Your task to perform on an android device: Go to Wikipedia Image 0: 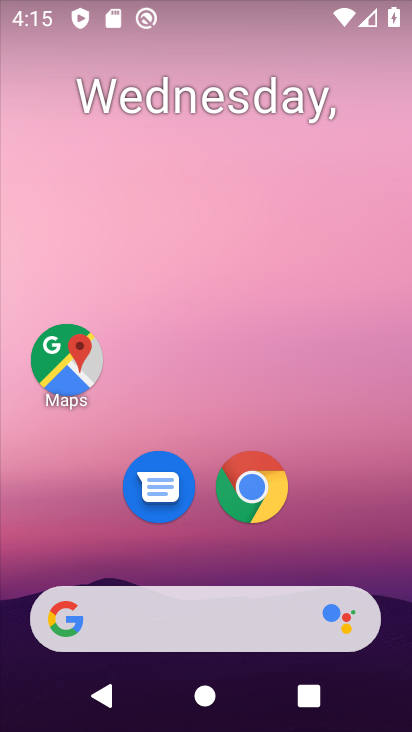
Step 0: click (256, 488)
Your task to perform on an android device: Go to Wikipedia Image 1: 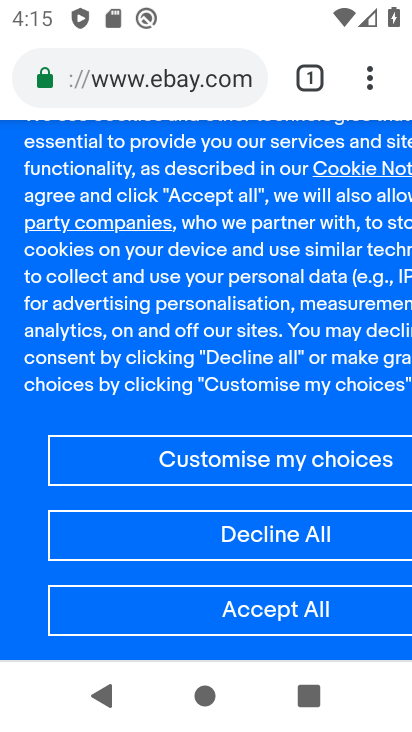
Step 1: click (228, 96)
Your task to perform on an android device: Go to Wikipedia Image 2: 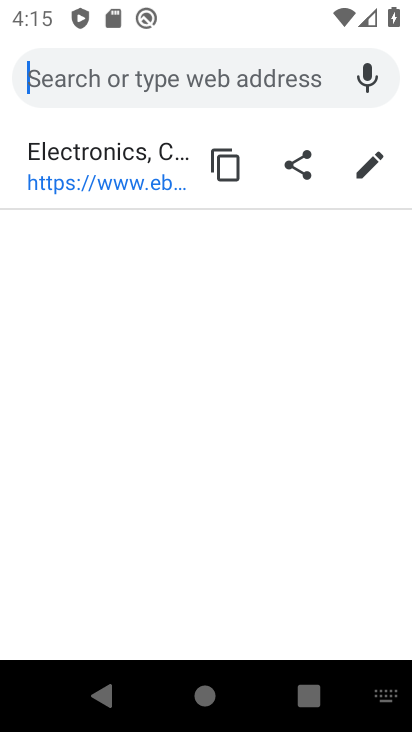
Step 2: type "wikipedia"
Your task to perform on an android device: Go to Wikipedia Image 3: 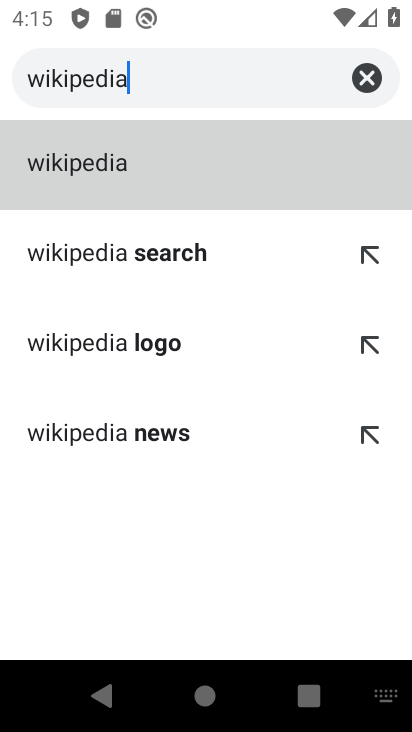
Step 3: click (113, 156)
Your task to perform on an android device: Go to Wikipedia Image 4: 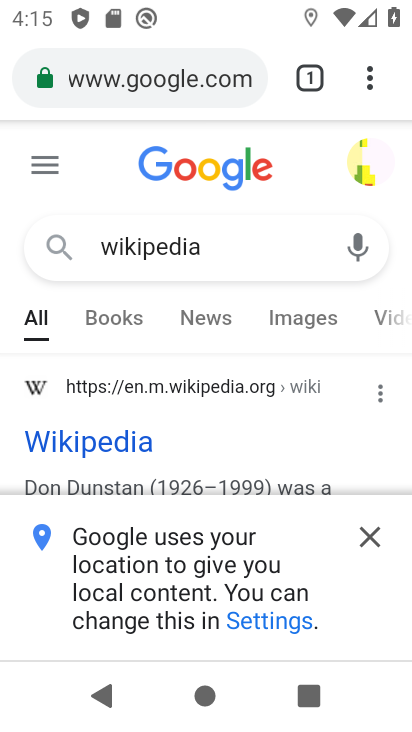
Step 4: click (102, 450)
Your task to perform on an android device: Go to Wikipedia Image 5: 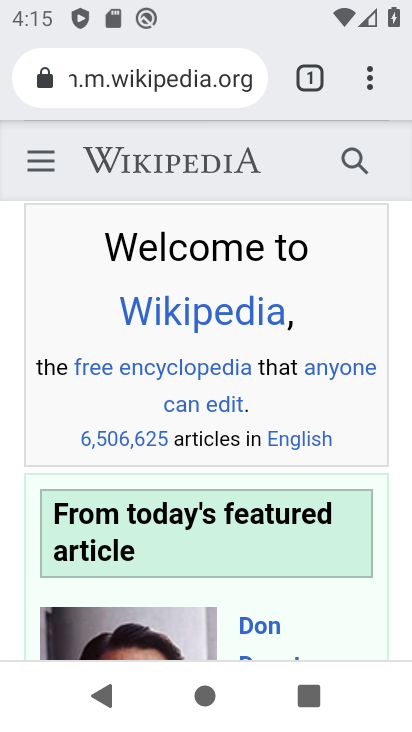
Step 5: task complete